Your task to perform on an android device: Search for Italian restaurants on Maps Image 0: 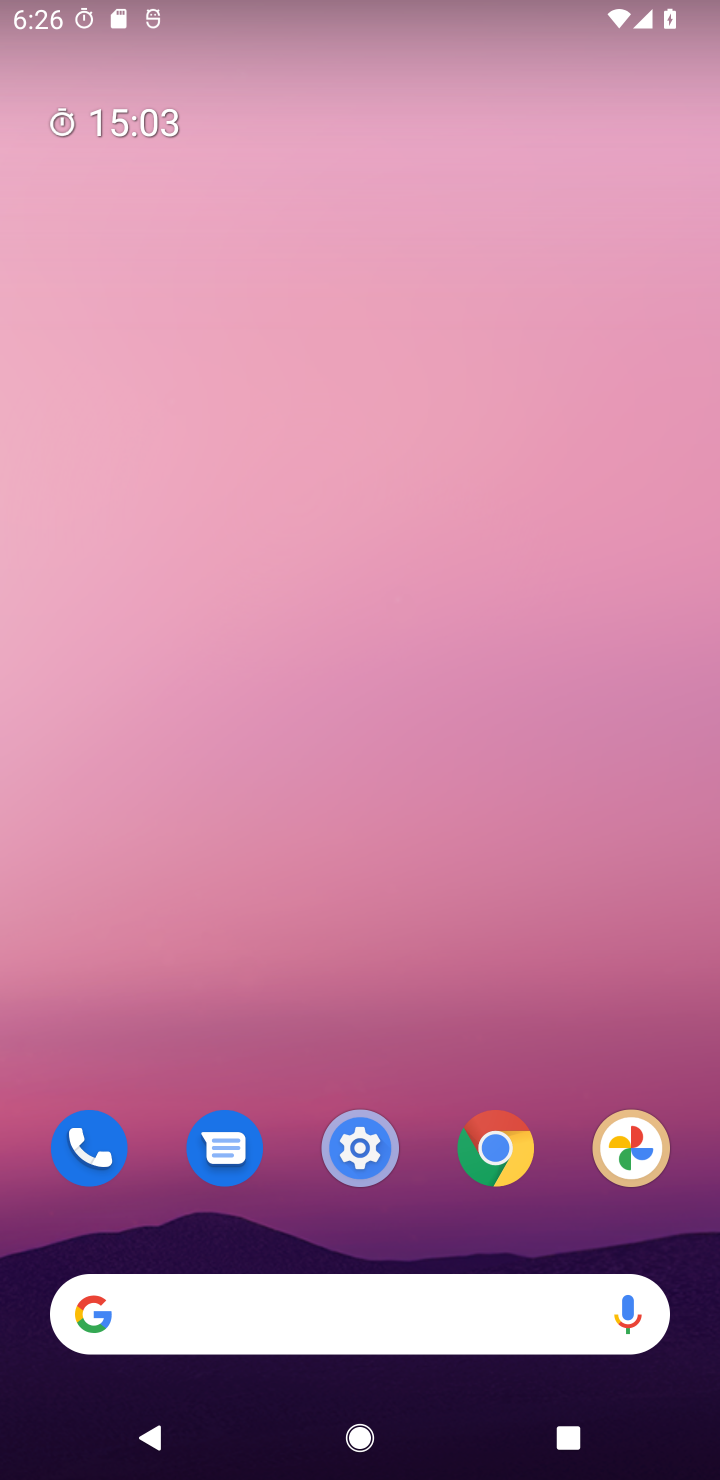
Step 0: drag from (419, 482) to (627, 19)
Your task to perform on an android device: Search for Italian restaurants on Maps Image 1: 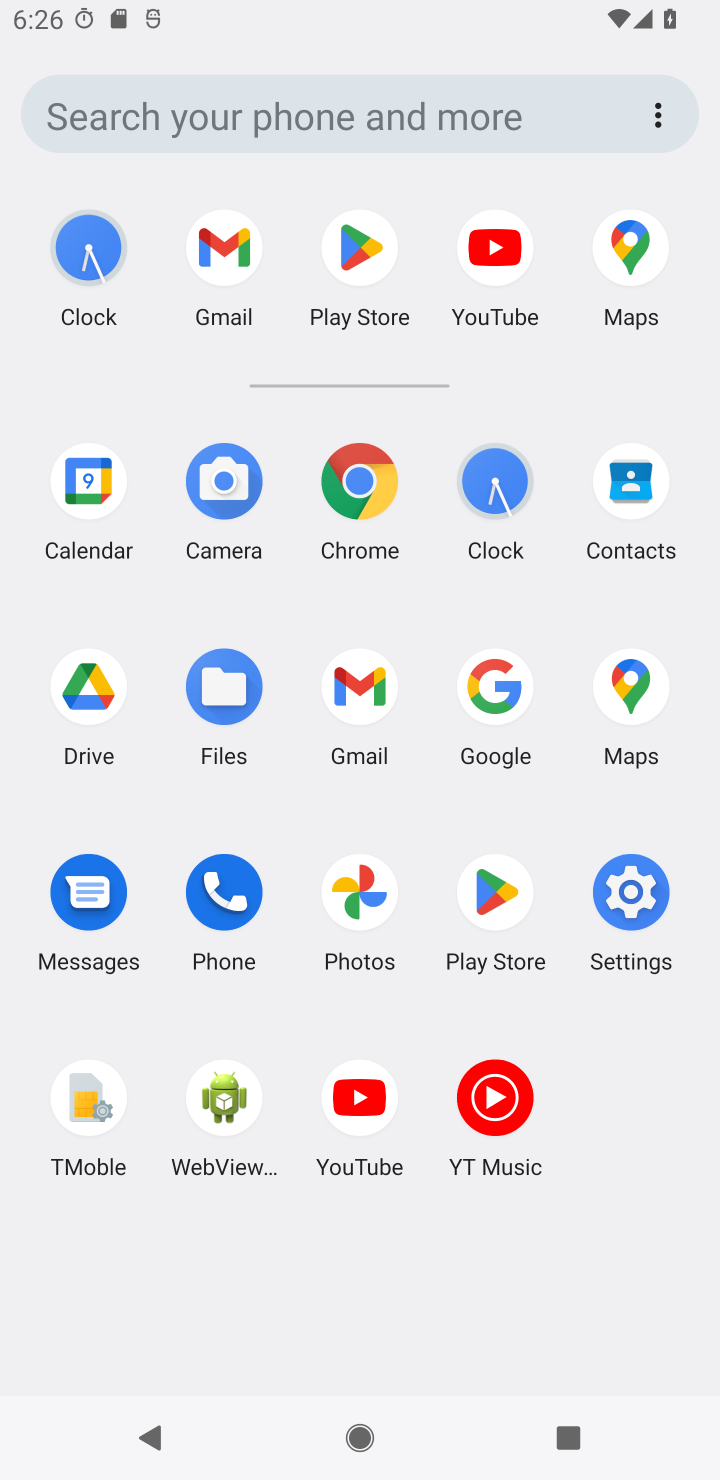
Step 1: click (637, 705)
Your task to perform on an android device: Search for Italian restaurants on Maps Image 2: 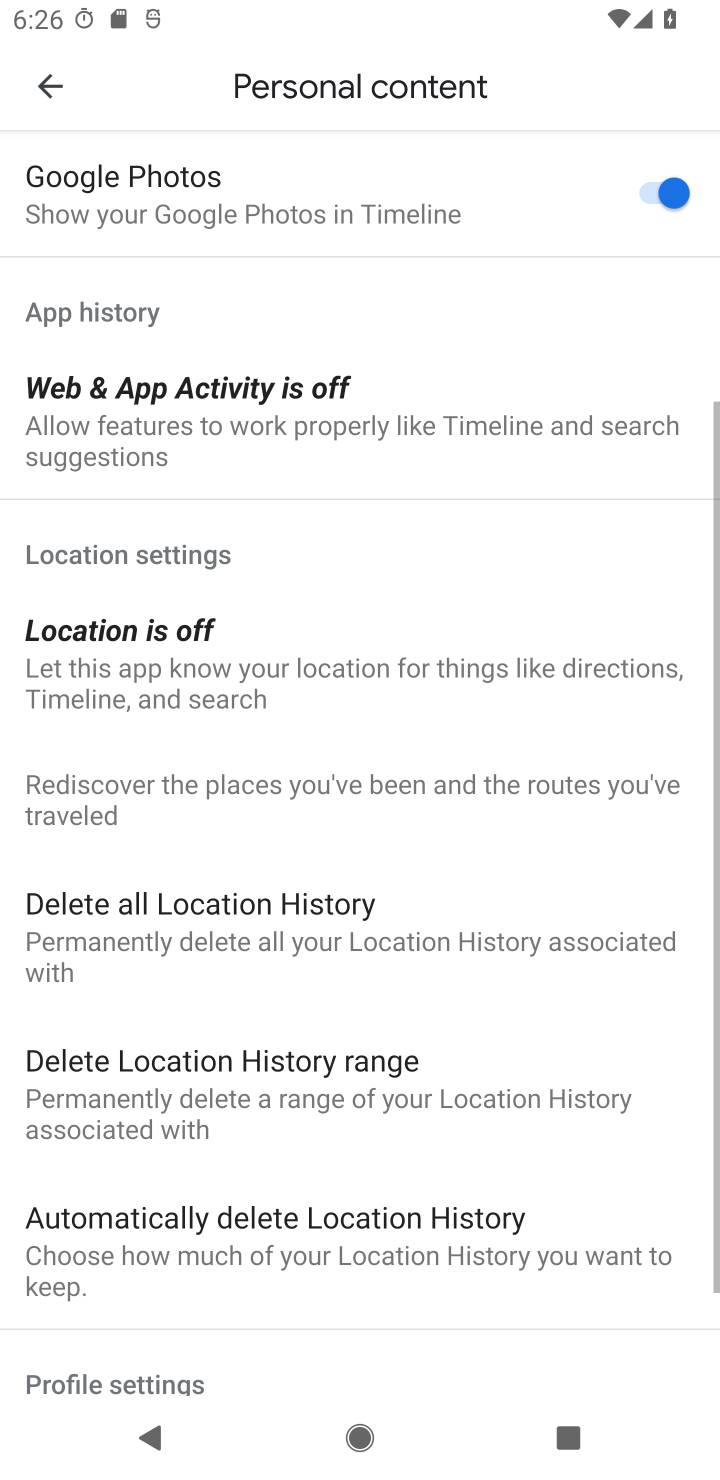
Step 2: click (61, 79)
Your task to perform on an android device: Search for Italian restaurants on Maps Image 3: 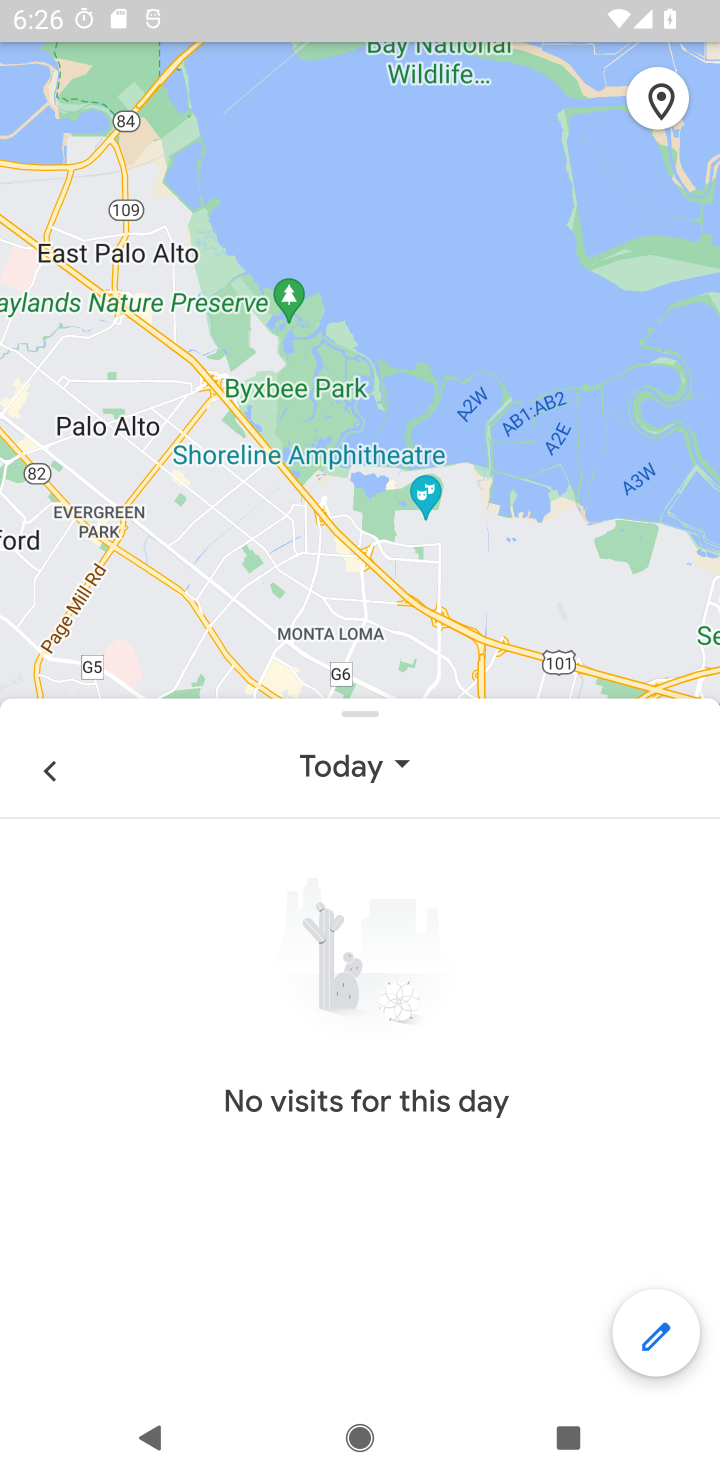
Step 3: press back button
Your task to perform on an android device: Search for Italian restaurants on Maps Image 4: 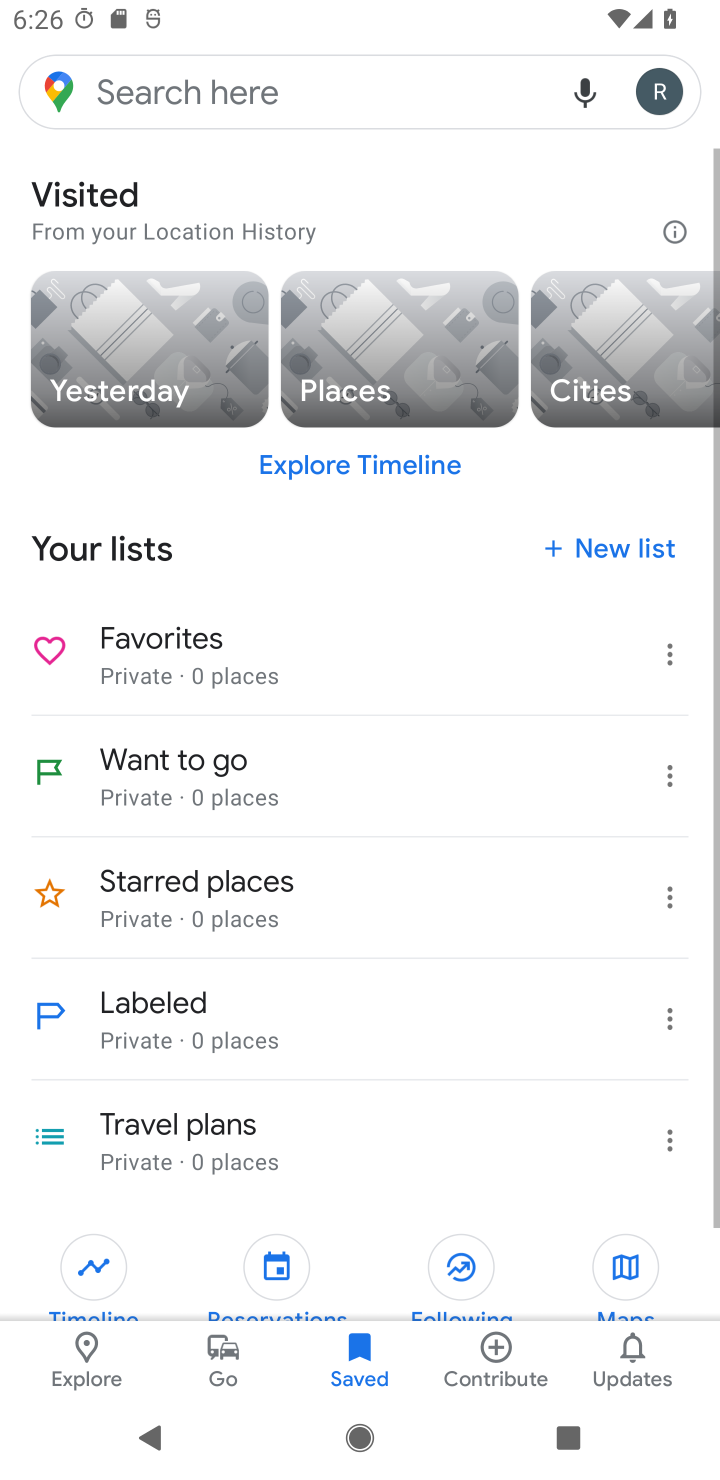
Step 4: click (284, 99)
Your task to perform on an android device: Search for Italian restaurants on Maps Image 5: 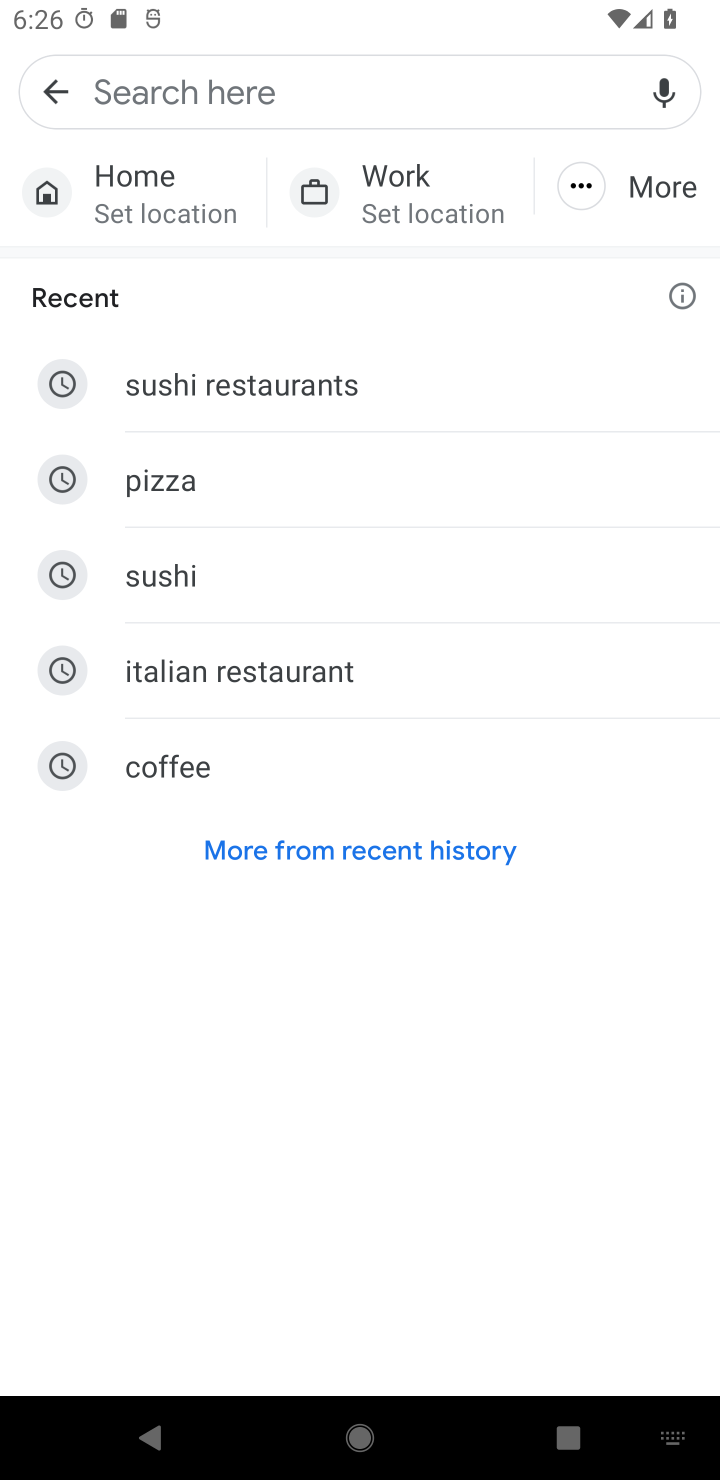
Step 5: type "italian restaurants"
Your task to perform on an android device: Search for Italian restaurants on Maps Image 6: 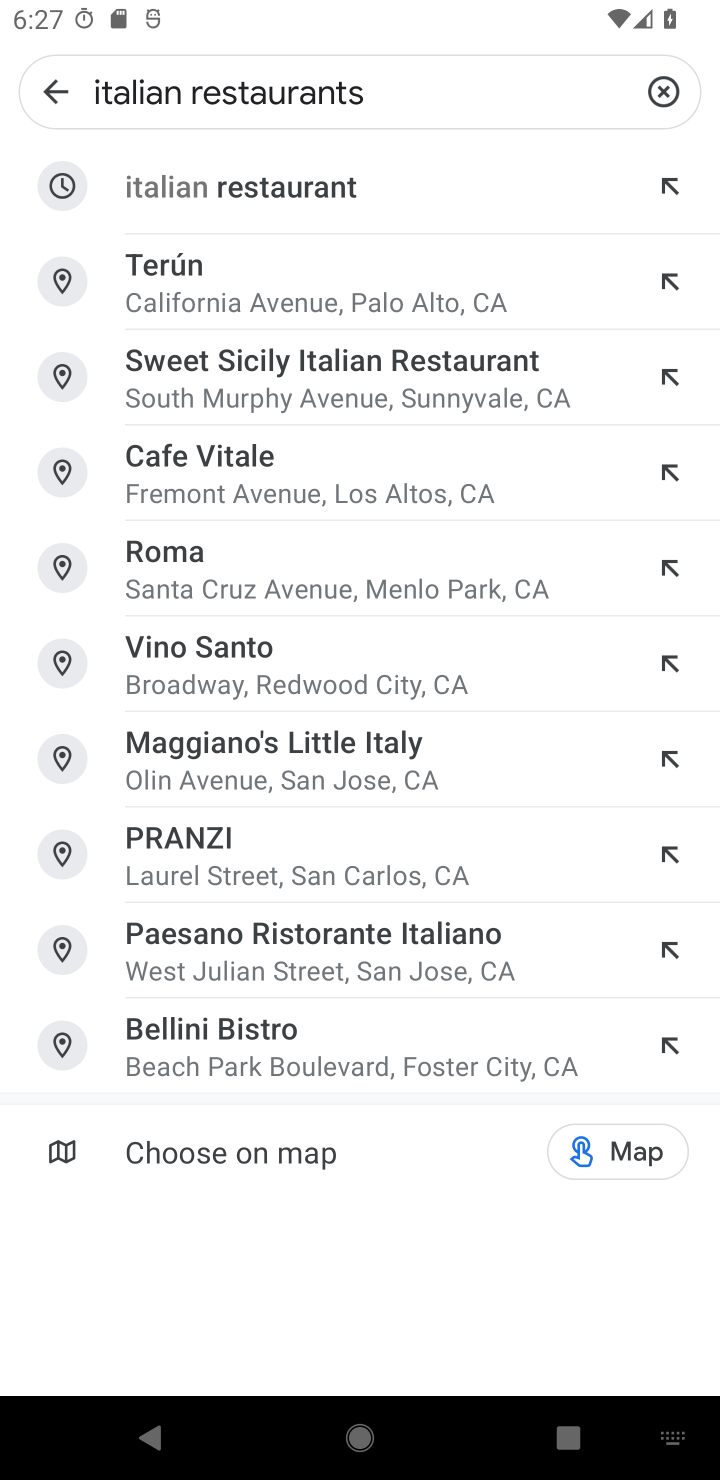
Step 6: click (330, 182)
Your task to perform on an android device: Search for Italian restaurants on Maps Image 7: 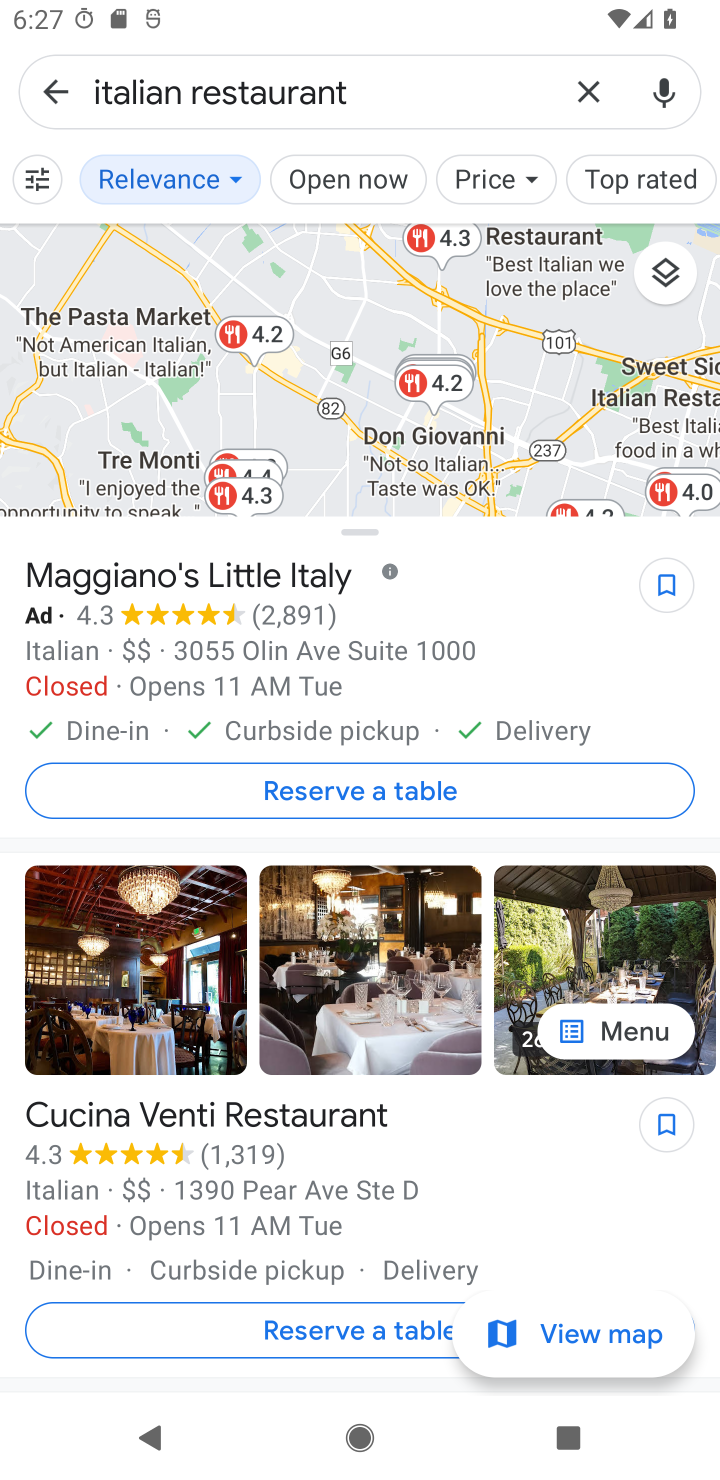
Step 7: task complete